Your task to perform on an android device: change keyboard looks Image 0: 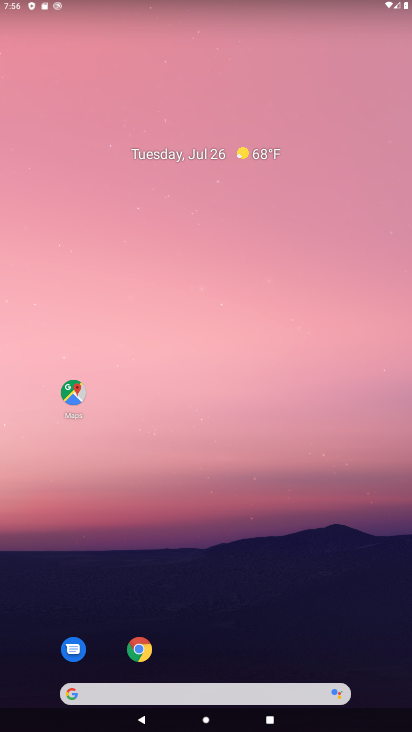
Step 0: drag from (164, 713) to (173, 148)
Your task to perform on an android device: change keyboard looks Image 1: 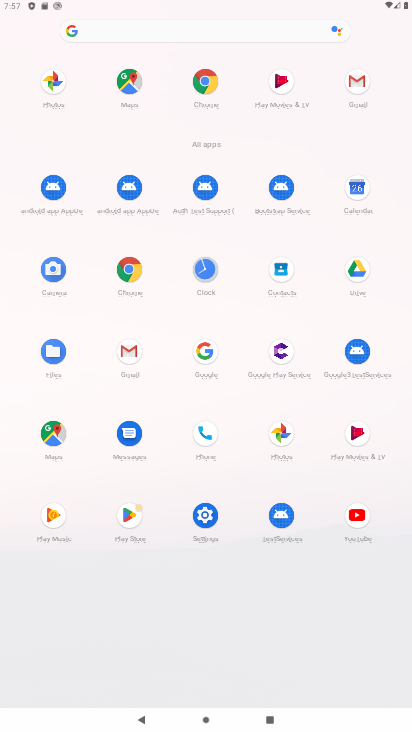
Step 1: click (208, 513)
Your task to perform on an android device: change keyboard looks Image 2: 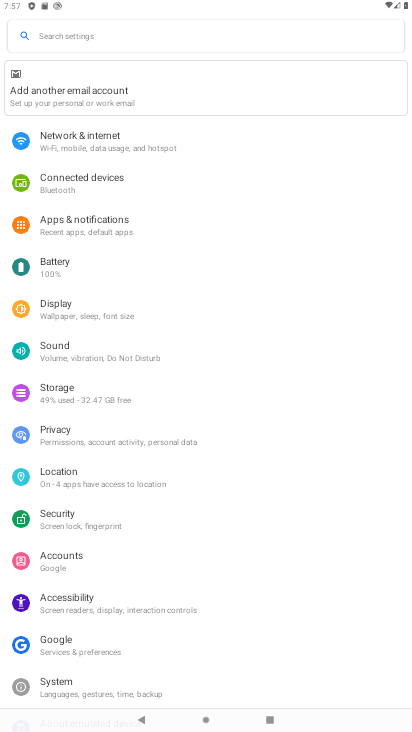
Step 2: click (141, 687)
Your task to perform on an android device: change keyboard looks Image 3: 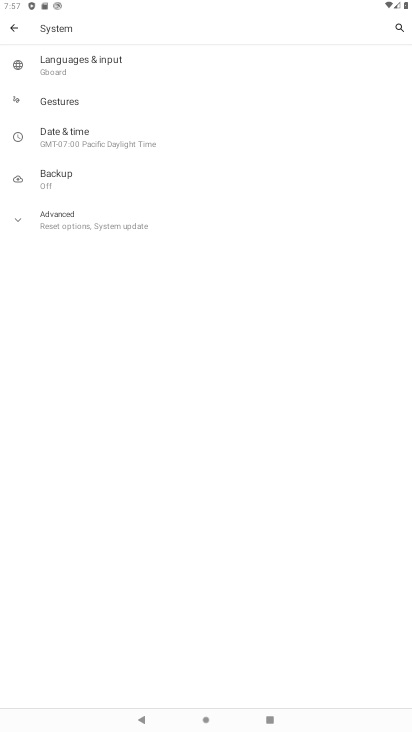
Step 3: click (82, 63)
Your task to perform on an android device: change keyboard looks Image 4: 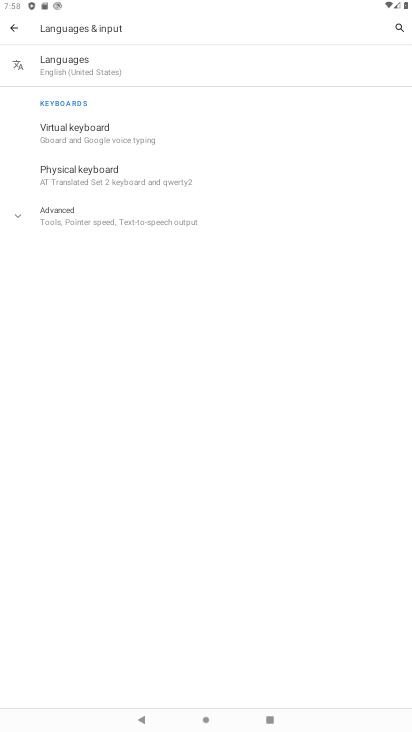
Step 4: click (109, 132)
Your task to perform on an android device: change keyboard looks Image 5: 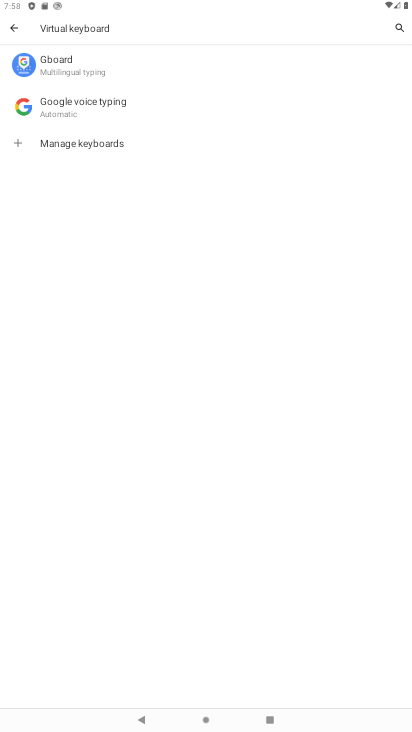
Step 5: click (82, 60)
Your task to perform on an android device: change keyboard looks Image 6: 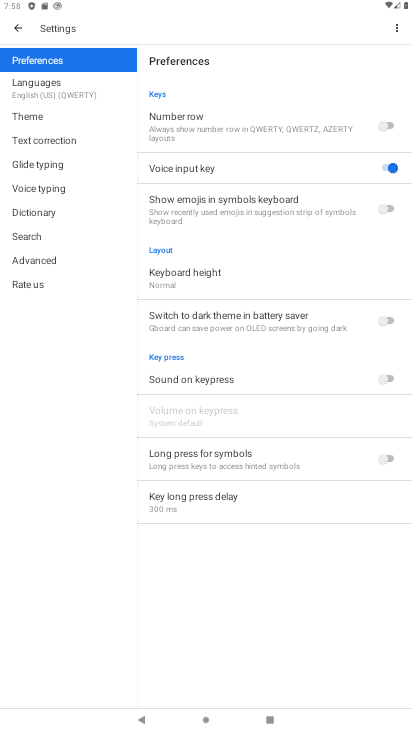
Step 6: click (37, 123)
Your task to perform on an android device: change keyboard looks Image 7: 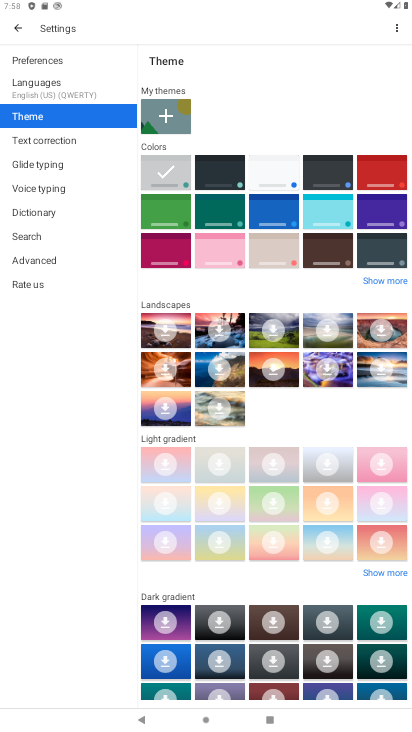
Step 7: click (268, 370)
Your task to perform on an android device: change keyboard looks Image 8: 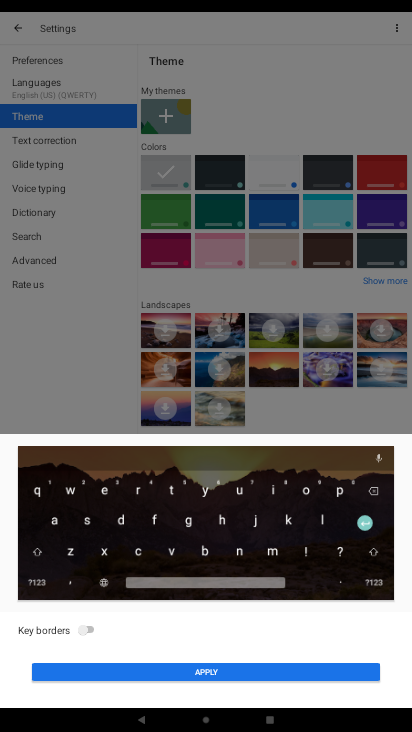
Step 8: click (118, 670)
Your task to perform on an android device: change keyboard looks Image 9: 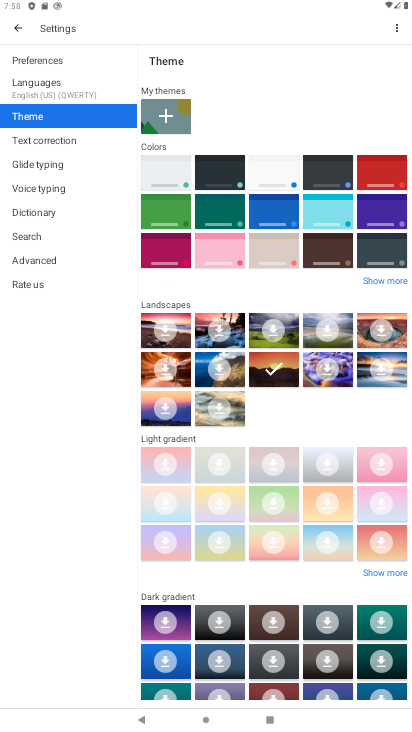
Step 9: task complete